Your task to perform on an android device: check android version Image 0: 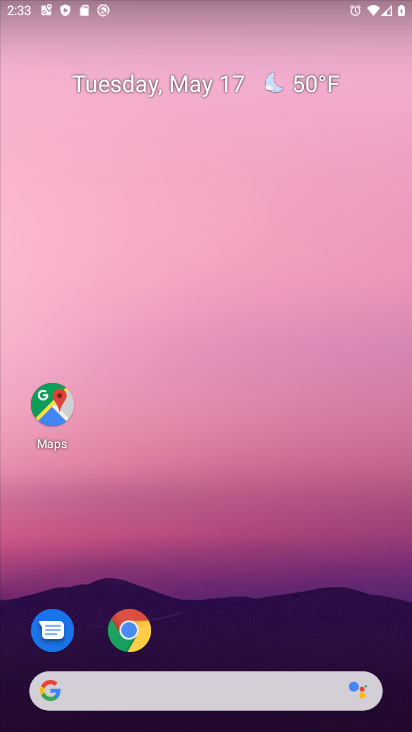
Step 0: drag from (189, 677) to (227, 112)
Your task to perform on an android device: check android version Image 1: 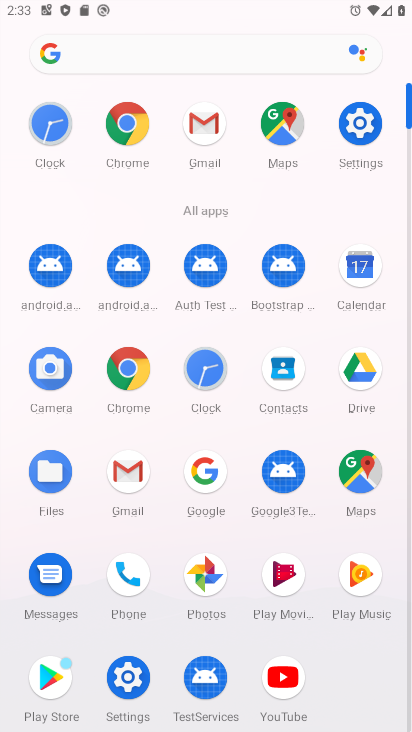
Step 1: click (352, 130)
Your task to perform on an android device: check android version Image 2: 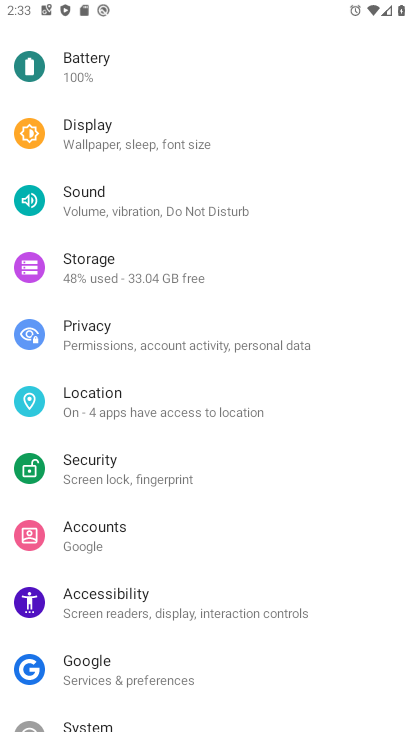
Step 2: drag from (144, 712) to (145, 287)
Your task to perform on an android device: check android version Image 3: 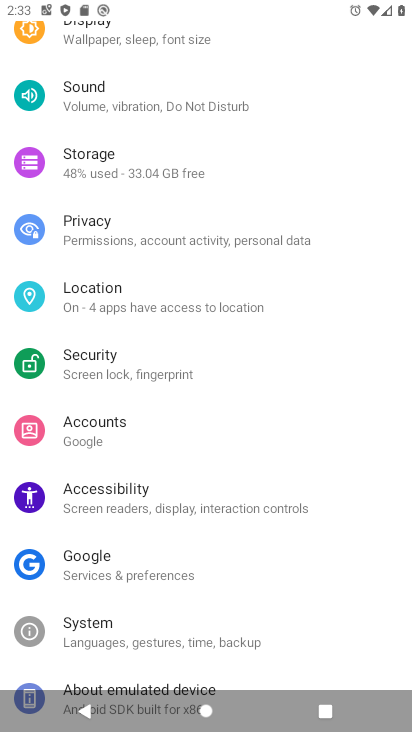
Step 3: drag from (112, 661) to (102, 312)
Your task to perform on an android device: check android version Image 4: 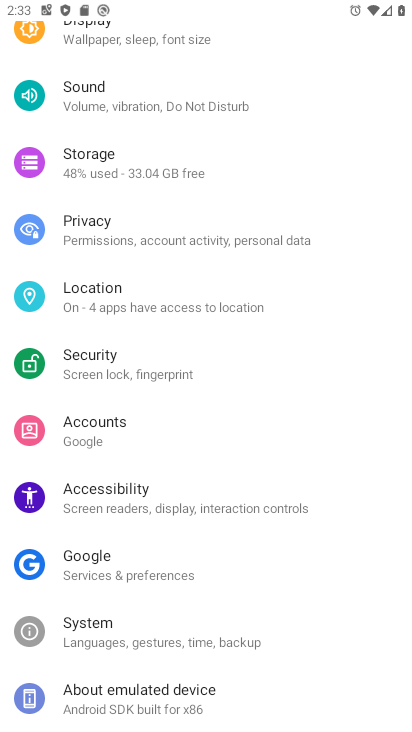
Step 4: click (102, 698)
Your task to perform on an android device: check android version Image 5: 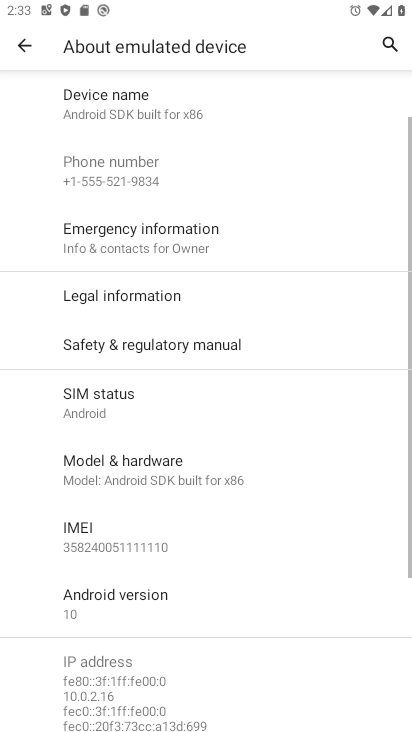
Step 5: click (95, 609)
Your task to perform on an android device: check android version Image 6: 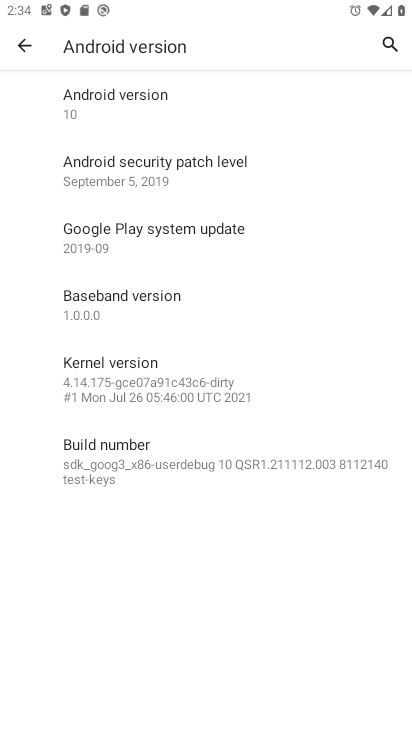
Step 6: task complete